Your task to perform on an android device: turn off javascript in the chrome app Image 0: 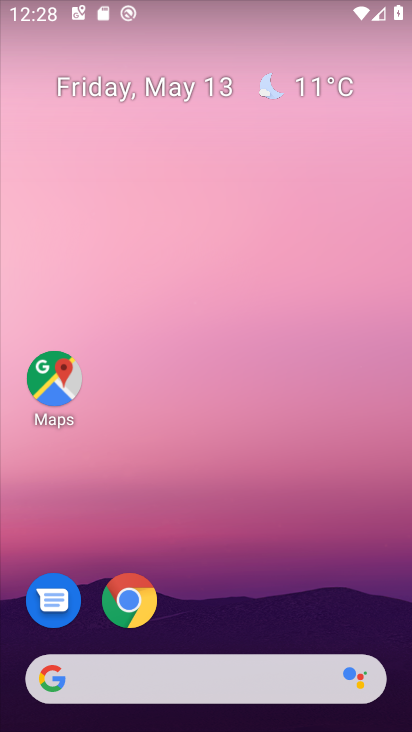
Step 0: click (206, 642)
Your task to perform on an android device: turn off javascript in the chrome app Image 1: 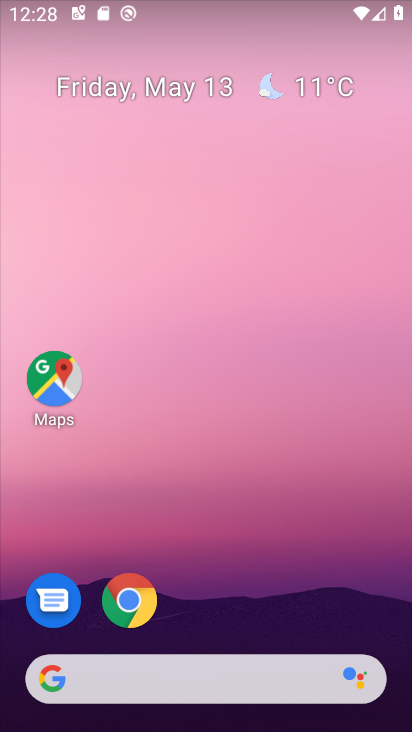
Step 1: click (141, 609)
Your task to perform on an android device: turn off javascript in the chrome app Image 2: 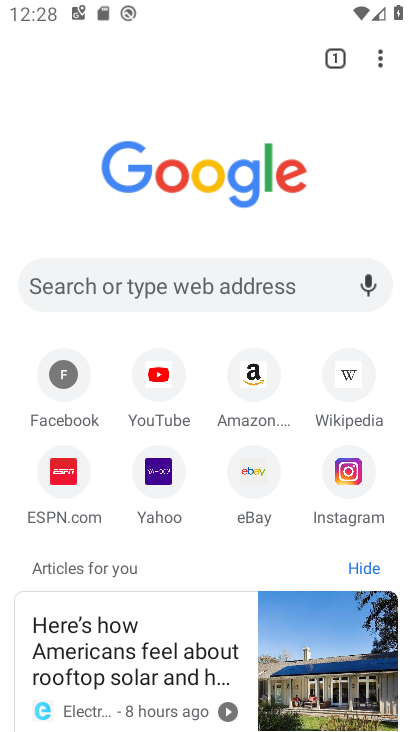
Step 2: click (381, 52)
Your task to perform on an android device: turn off javascript in the chrome app Image 3: 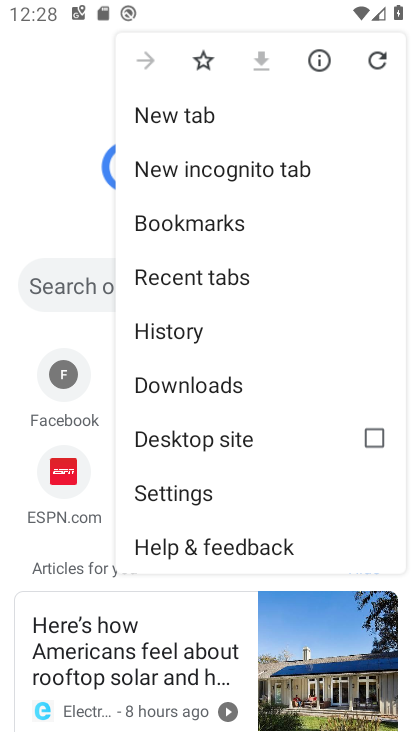
Step 3: click (200, 502)
Your task to perform on an android device: turn off javascript in the chrome app Image 4: 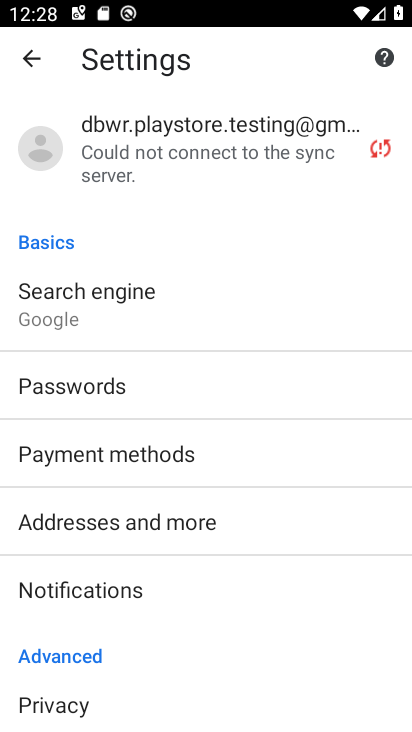
Step 4: drag from (144, 703) to (191, 246)
Your task to perform on an android device: turn off javascript in the chrome app Image 5: 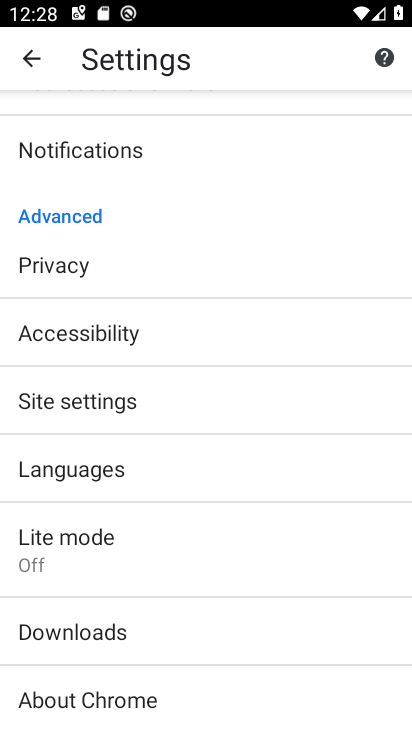
Step 5: click (154, 414)
Your task to perform on an android device: turn off javascript in the chrome app Image 6: 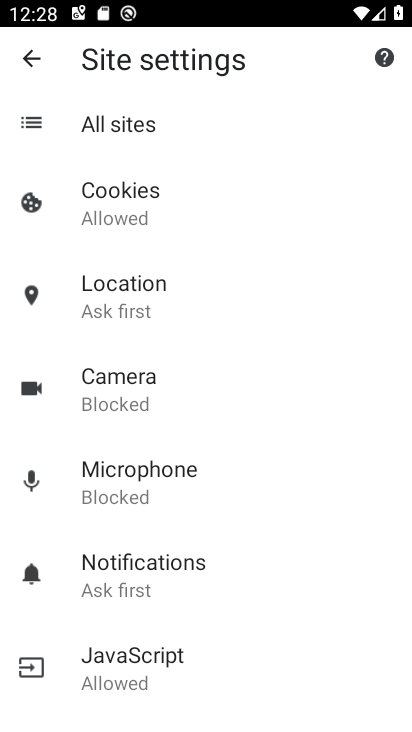
Step 6: click (153, 669)
Your task to perform on an android device: turn off javascript in the chrome app Image 7: 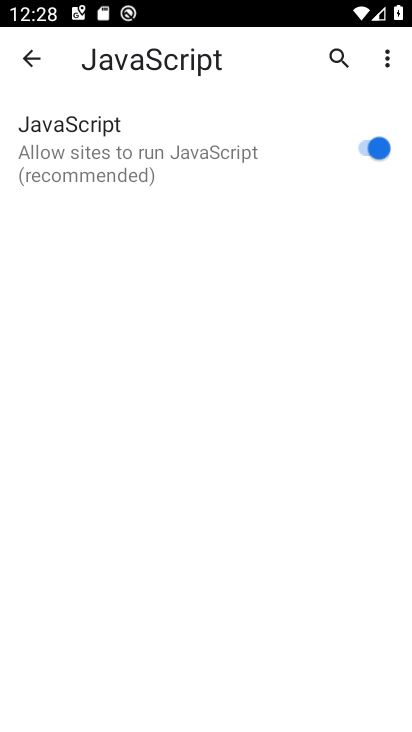
Step 7: click (366, 138)
Your task to perform on an android device: turn off javascript in the chrome app Image 8: 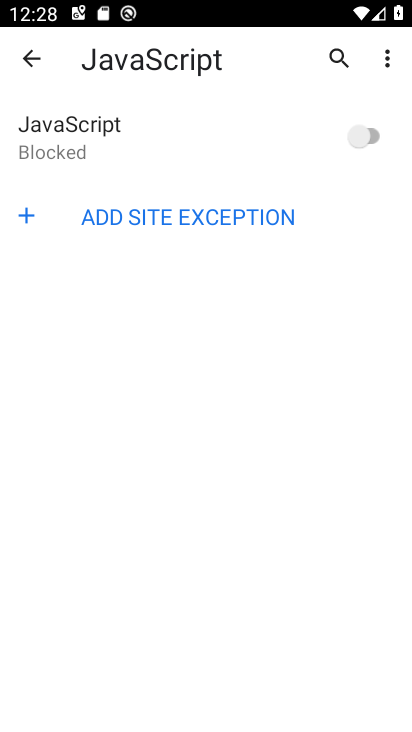
Step 8: task complete